Your task to perform on an android device: see sites visited before in the chrome app Image 0: 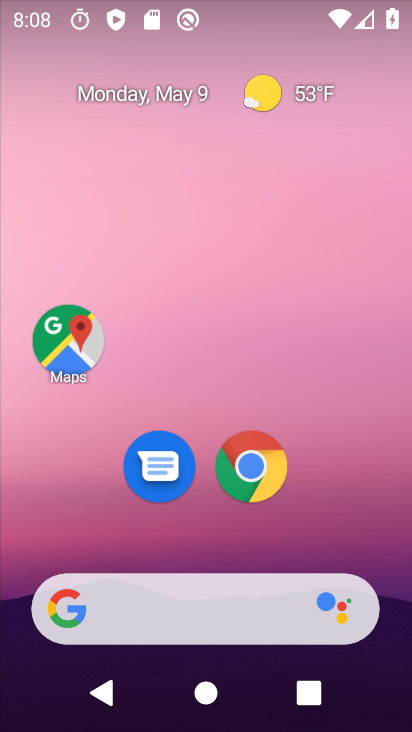
Step 0: click (249, 466)
Your task to perform on an android device: see sites visited before in the chrome app Image 1: 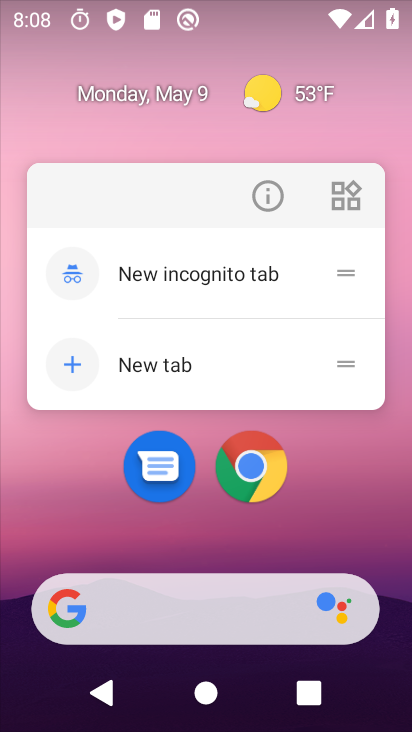
Step 1: click (253, 470)
Your task to perform on an android device: see sites visited before in the chrome app Image 2: 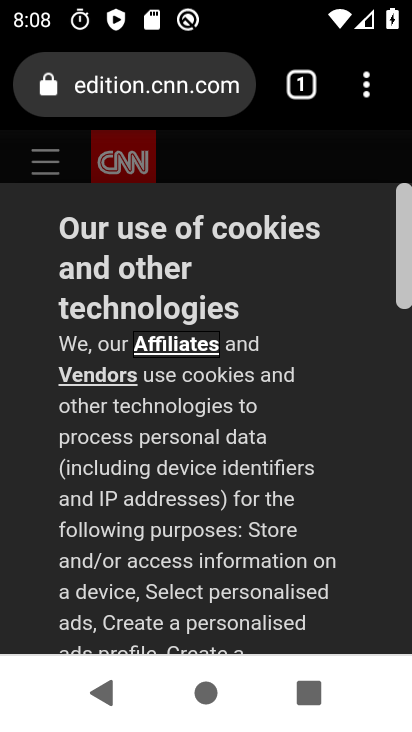
Step 2: click (368, 85)
Your task to perform on an android device: see sites visited before in the chrome app Image 3: 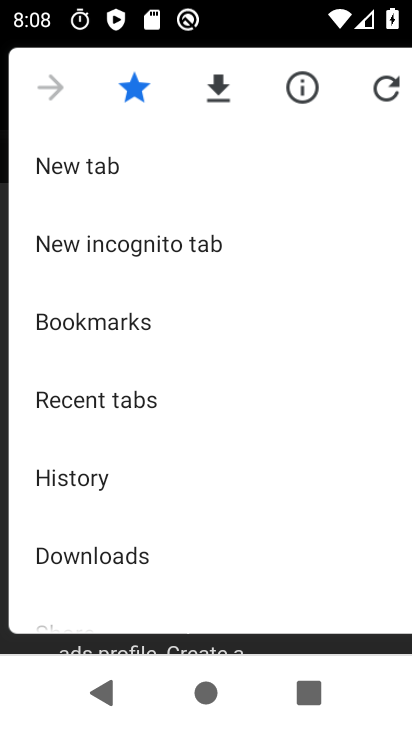
Step 3: click (101, 477)
Your task to perform on an android device: see sites visited before in the chrome app Image 4: 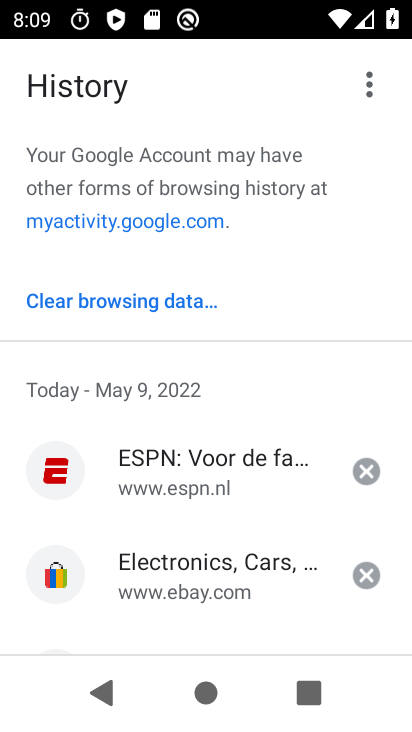
Step 4: task complete